Your task to perform on an android device: open device folders in google photos Image 0: 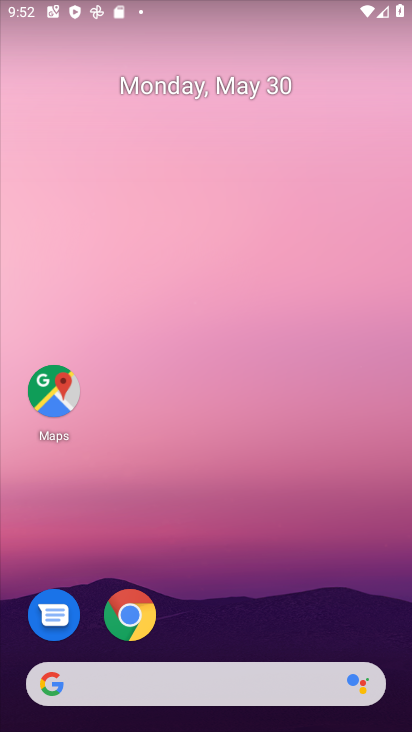
Step 0: drag from (276, 499) to (84, 12)
Your task to perform on an android device: open device folders in google photos Image 1: 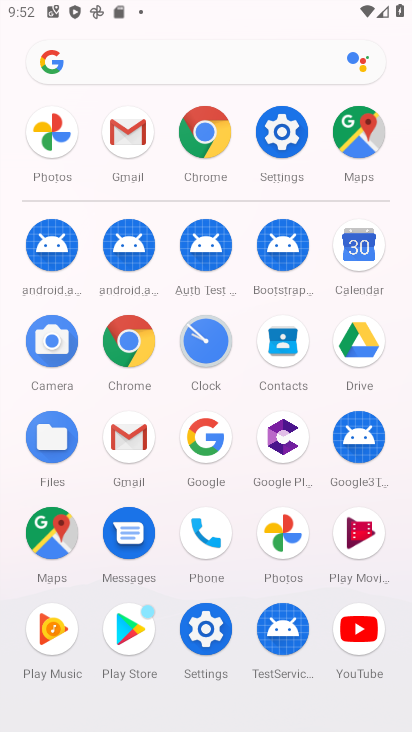
Step 1: click (55, 142)
Your task to perform on an android device: open device folders in google photos Image 2: 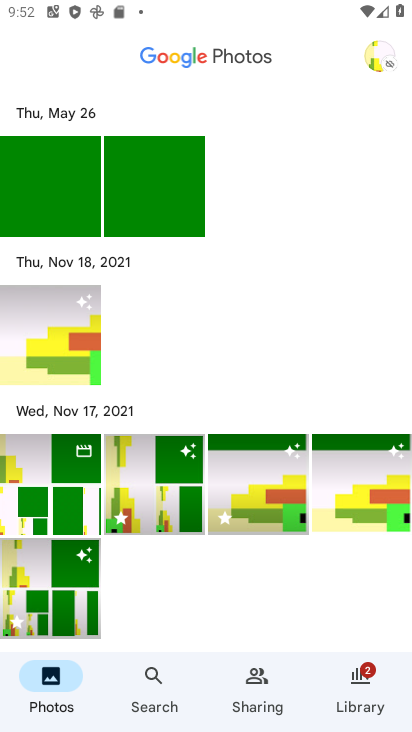
Step 2: click (163, 672)
Your task to perform on an android device: open device folders in google photos Image 3: 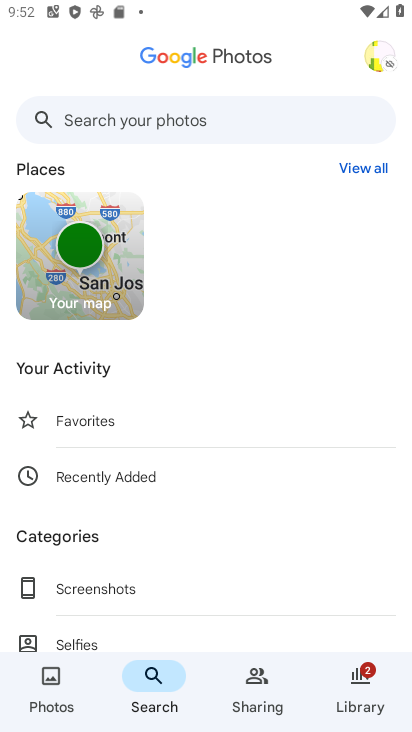
Step 3: click (184, 116)
Your task to perform on an android device: open device folders in google photos Image 4: 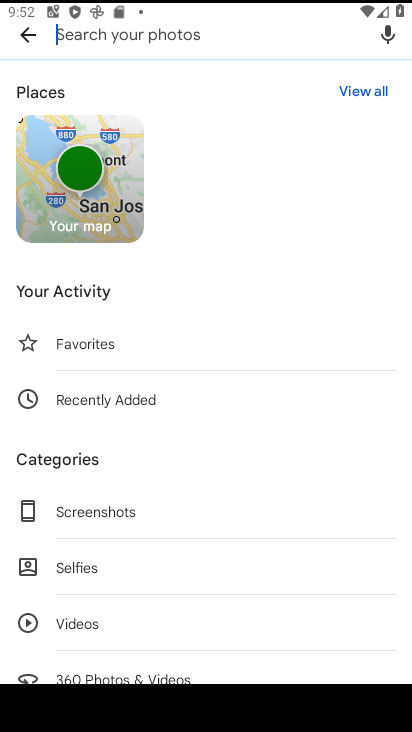
Step 4: type "device folders"
Your task to perform on an android device: open device folders in google photos Image 5: 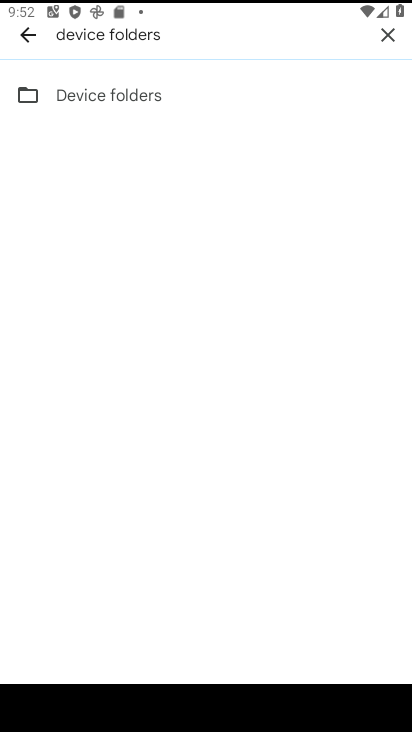
Step 5: click (124, 97)
Your task to perform on an android device: open device folders in google photos Image 6: 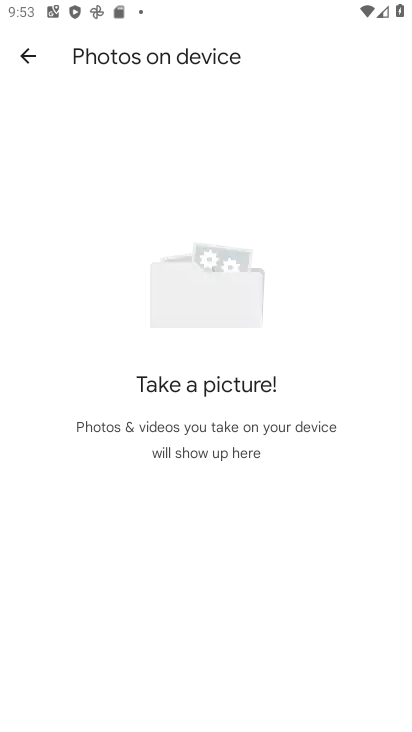
Step 6: task complete